Your task to perform on an android device: turn on javascript in the chrome app Image 0: 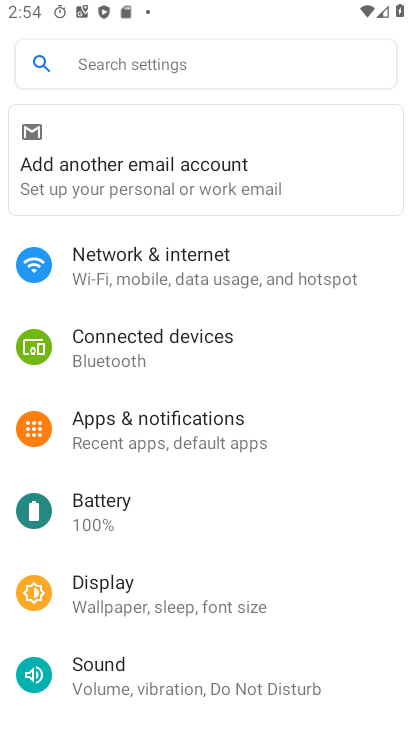
Step 0: press home button
Your task to perform on an android device: turn on javascript in the chrome app Image 1: 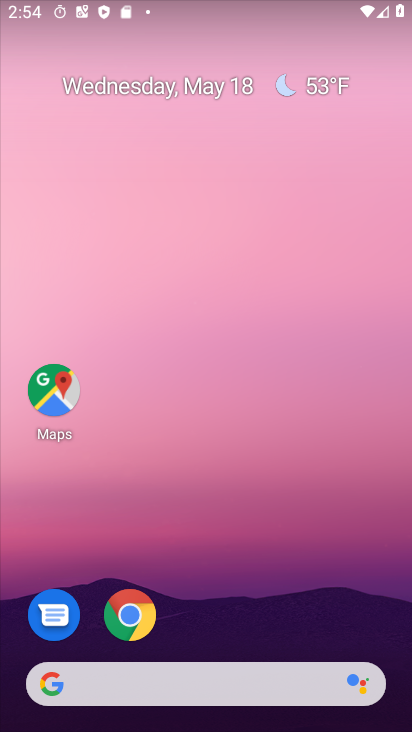
Step 1: click (137, 622)
Your task to perform on an android device: turn on javascript in the chrome app Image 2: 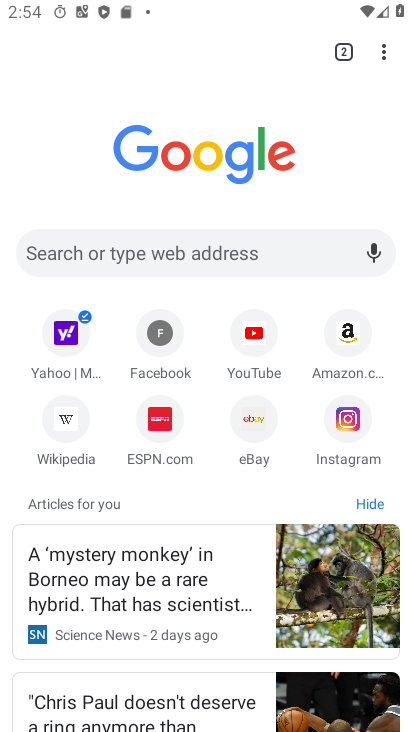
Step 2: drag from (392, 50) to (306, 441)
Your task to perform on an android device: turn on javascript in the chrome app Image 3: 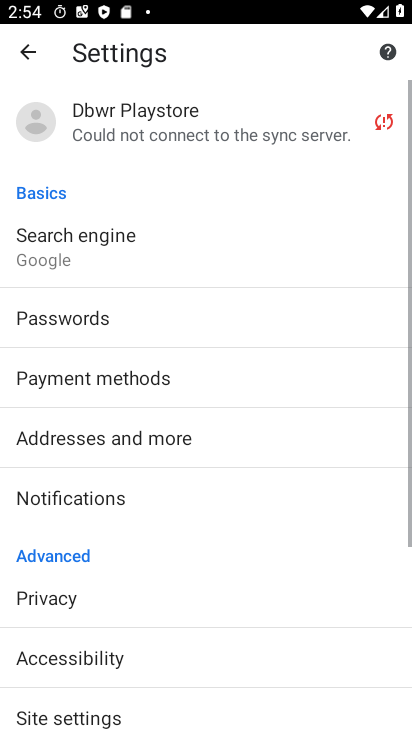
Step 3: drag from (209, 648) to (304, 313)
Your task to perform on an android device: turn on javascript in the chrome app Image 4: 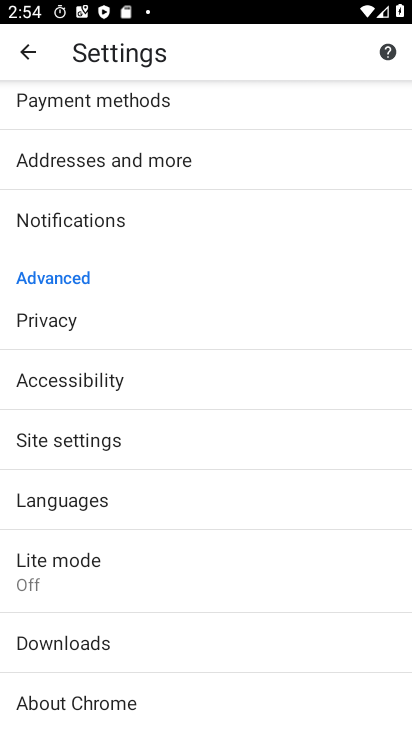
Step 4: click (145, 455)
Your task to perform on an android device: turn on javascript in the chrome app Image 5: 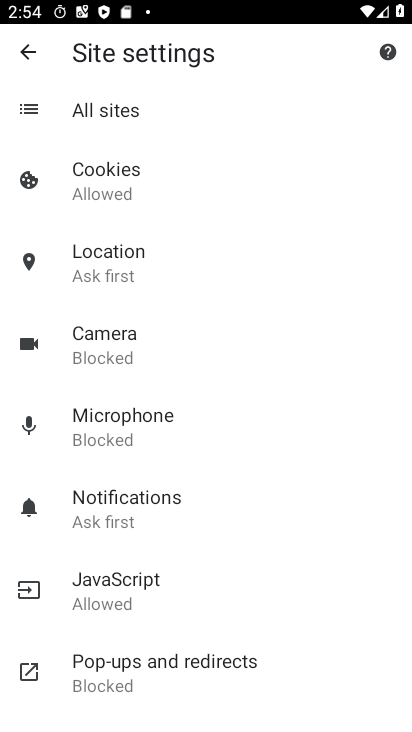
Step 5: click (182, 599)
Your task to perform on an android device: turn on javascript in the chrome app Image 6: 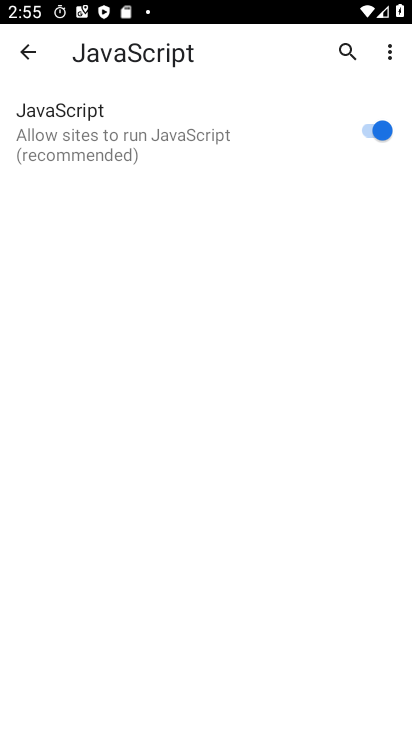
Step 6: task complete